Your task to perform on an android device: empty trash in the gmail app Image 0: 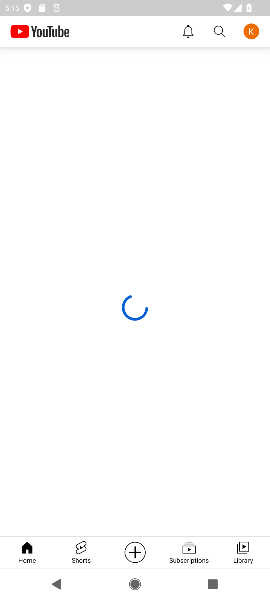
Step 0: press home button
Your task to perform on an android device: empty trash in the gmail app Image 1: 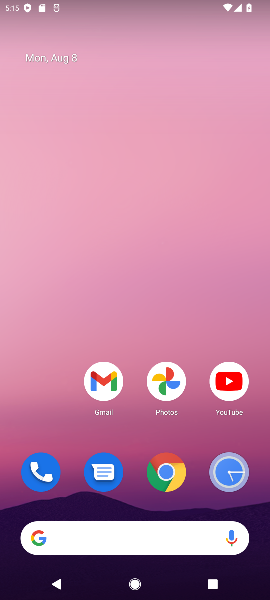
Step 1: click (92, 385)
Your task to perform on an android device: empty trash in the gmail app Image 2: 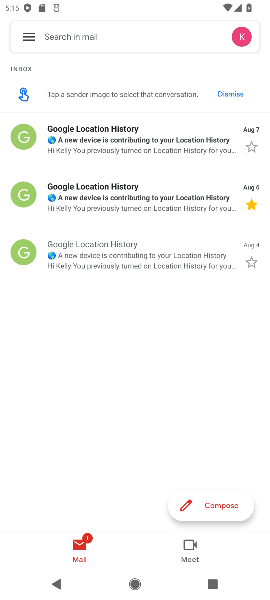
Step 2: click (240, 35)
Your task to perform on an android device: empty trash in the gmail app Image 3: 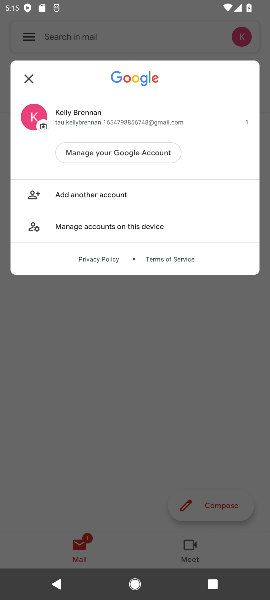
Step 3: click (185, 378)
Your task to perform on an android device: empty trash in the gmail app Image 4: 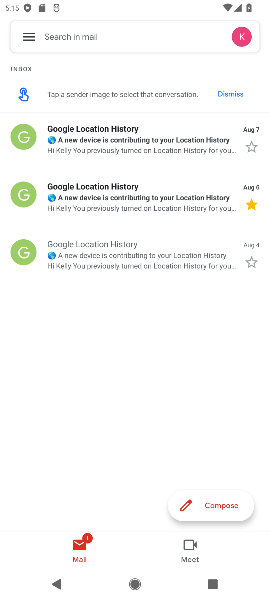
Step 4: click (27, 33)
Your task to perform on an android device: empty trash in the gmail app Image 5: 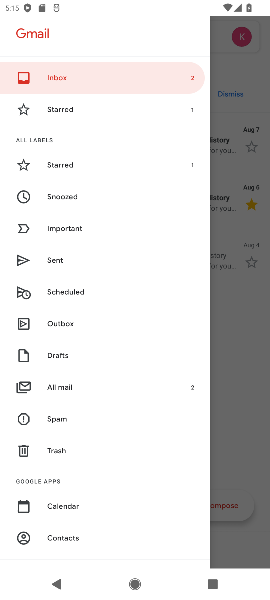
Step 5: click (47, 449)
Your task to perform on an android device: empty trash in the gmail app Image 6: 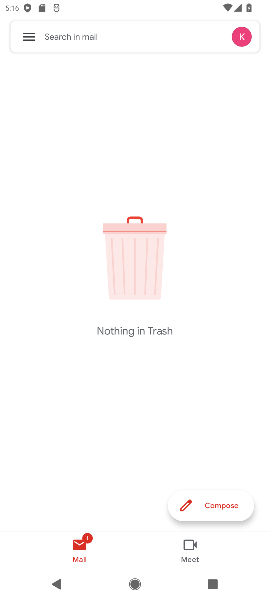
Step 6: task complete